Your task to perform on an android device: Show me productivity apps on the Play Store Image 0: 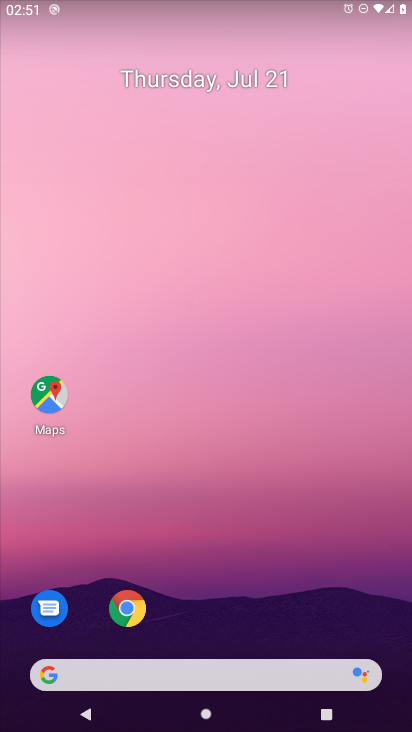
Step 0: press home button
Your task to perform on an android device: Show me productivity apps on the Play Store Image 1: 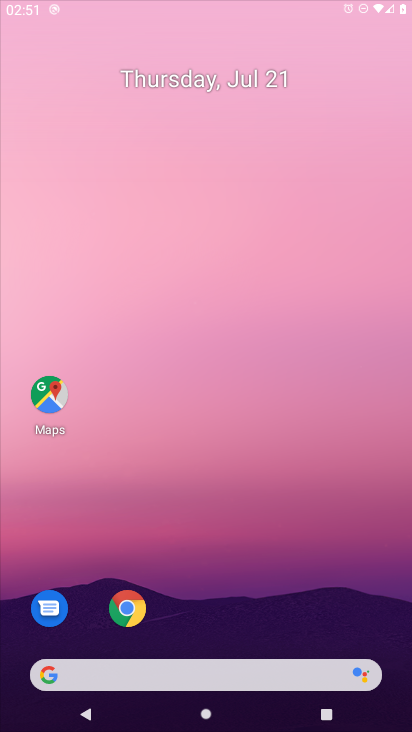
Step 1: drag from (250, 630) to (304, 3)
Your task to perform on an android device: Show me productivity apps on the Play Store Image 2: 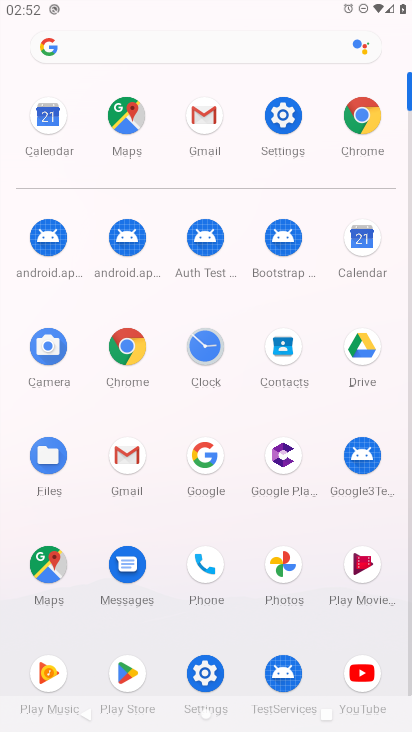
Step 2: click (130, 680)
Your task to perform on an android device: Show me productivity apps on the Play Store Image 3: 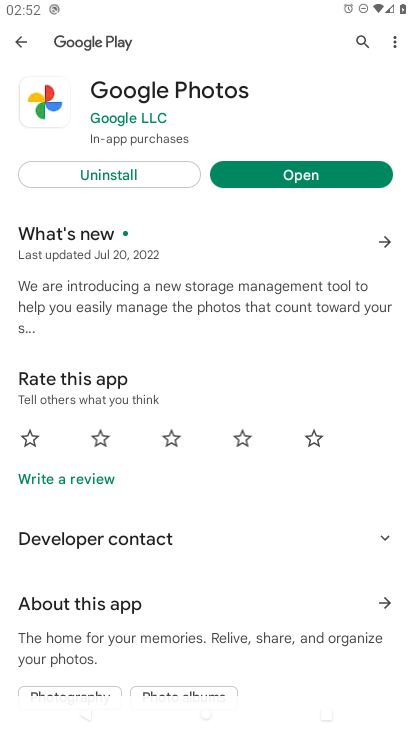
Step 3: press back button
Your task to perform on an android device: Show me productivity apps on the Play Store Image 4: 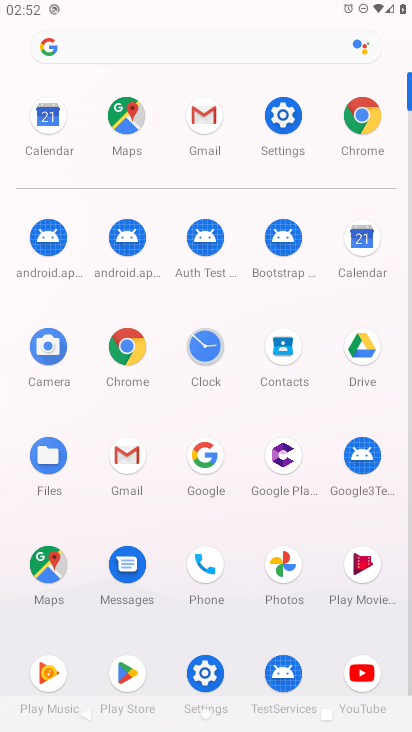
Step 4: click (130, 671)
Your task to perform on an android device: Show me productivity apps on the Play Store Image 5: 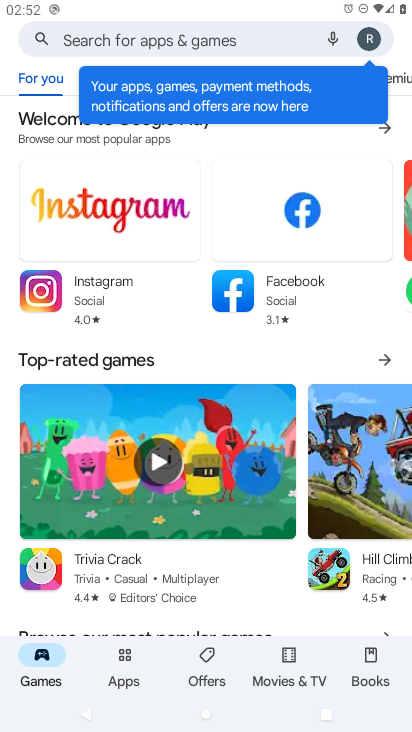
Step 5: click (117, 664)
Your task to perform on an android device: Show me productivity apps on the Play Store Image 6: 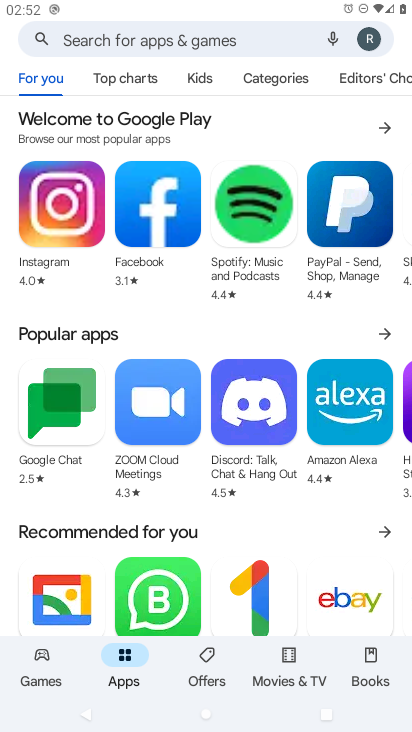
Step 6: click (271, 79)
Your task to perform on an android device: Show me productivity apps on the Play Store Image 7: 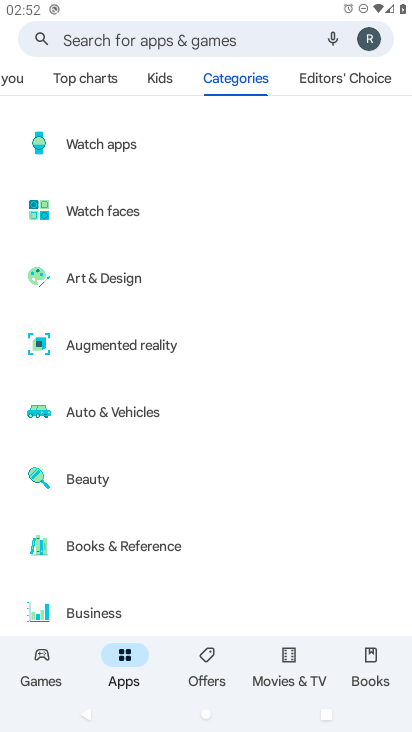
Step 7: drag from (262, 536) to (272, 11)
Your task to perform on an android device: Show me productivity apps on the Play Store Image 8: 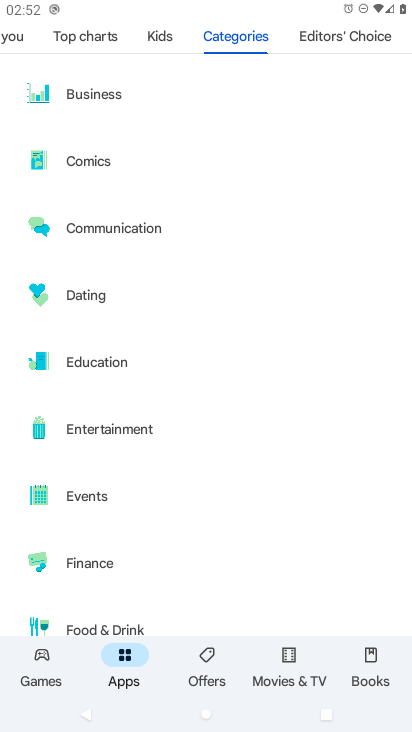
Step 8: drag from (257, 559) to (300, 27)
Your task to perform on an android device: Show me productivity apps on the Play Store Image 9: 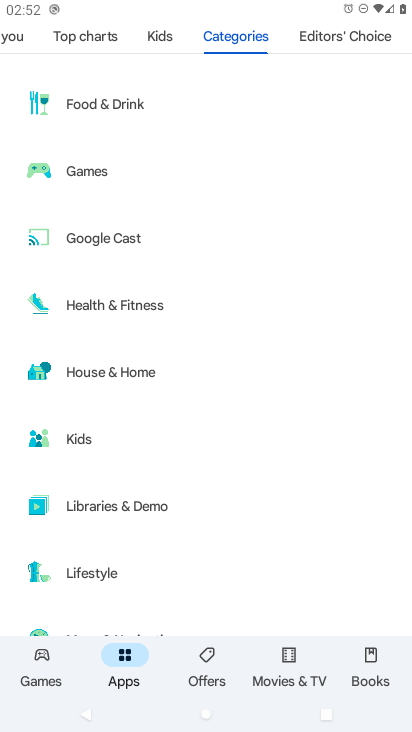
Step 9: drag from (294, 550) to (328, 18)
Your task to perform on an android device: Show me productivity apps on the Play Store Image 10: 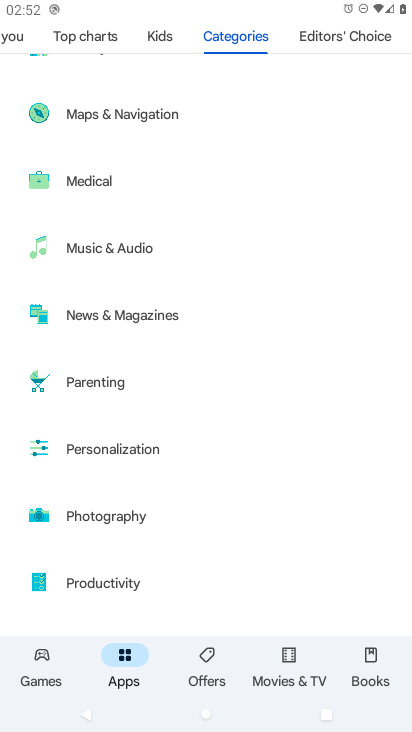
Step 10: click (113, 582)
Your task to perform on an android device: Show me productivity apps on the Play Store Image 11: 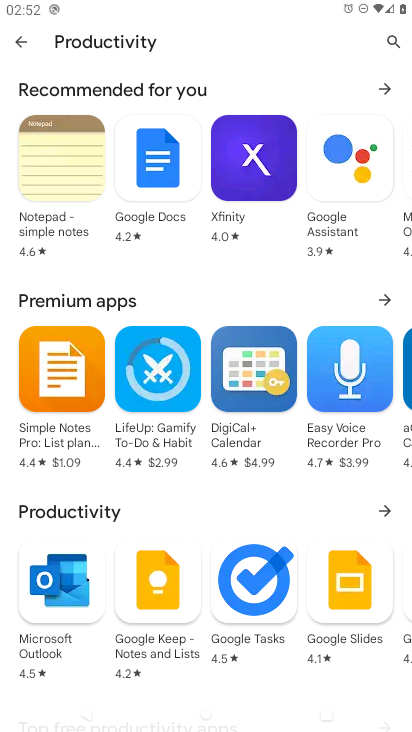
Step 11: task complete